Your task to perform on an android device: Open calendar and show me the third week of next month Image 0: 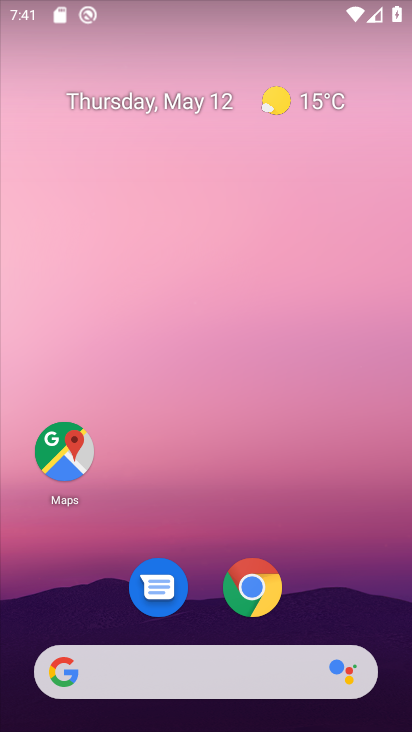
Step 0: drag from (384, 622) to (244, 9)
Your task to perform on an android device: Open calendar and show me the third week of next month Image 1: 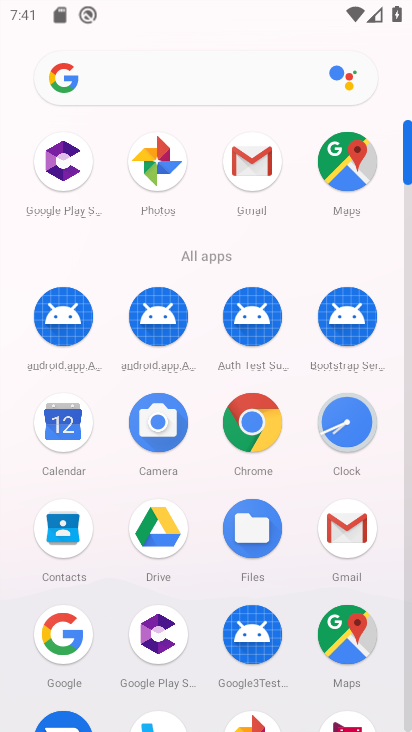
Step 1: click (69, 444)
Your task to perform on an android device: Open calendar and show me the third week of next month Image 2: 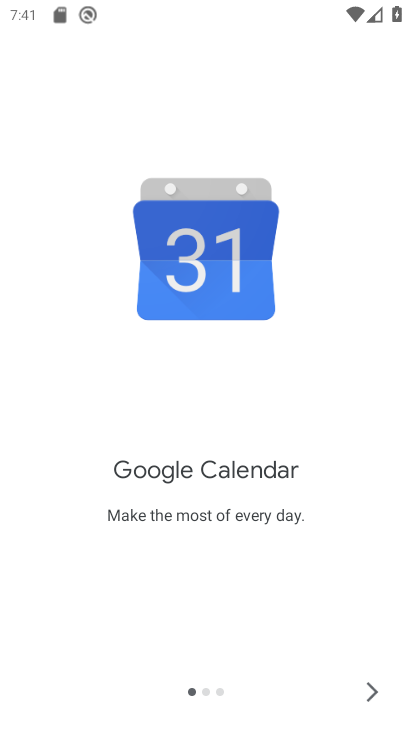
Step 2: click (377, 682)
Your task to perform on an android device: Open calendar and show me the third week of next month Image 3: 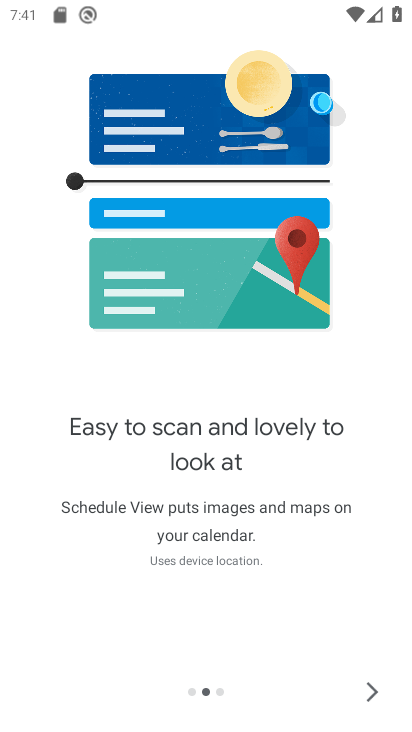
Step 3: click (377, 682)
Your task to perform on an android device: Open calendar and show me the third week of next month Image 4: 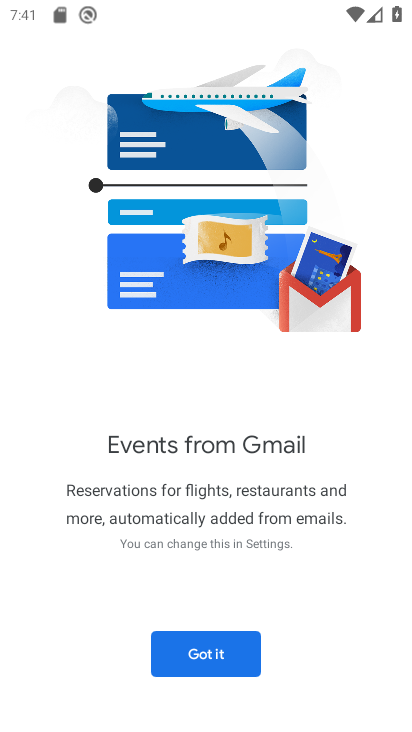
Step 4: click (201, 649)
Your task to perform on an android device: Open calendar and show me the third week of next month Image 5: 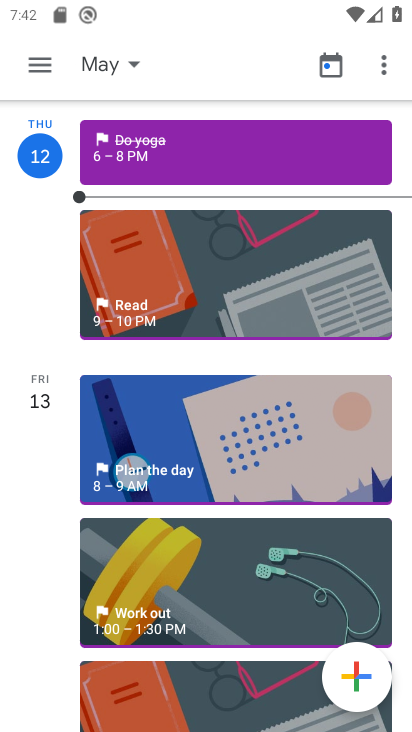
Step 5: click (102, 62)
Your task to perform on an android device: Open calendar and show me the third week of next month Image 6: 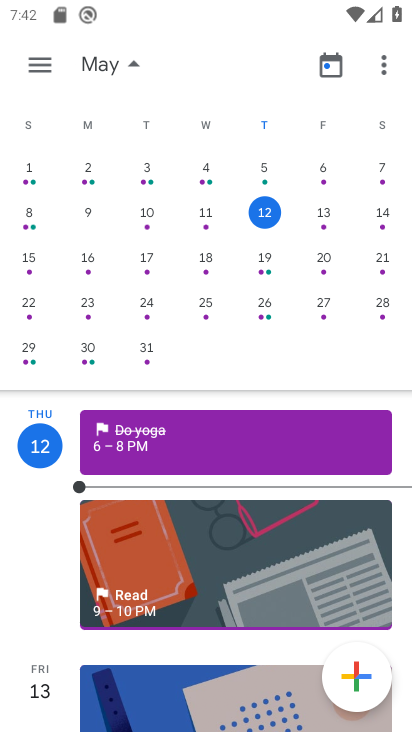
Step 6: drag from (358, 267) to (37, 284)
Your task to perform on an android device: Open calendar and show me the third week of next month Image 7: 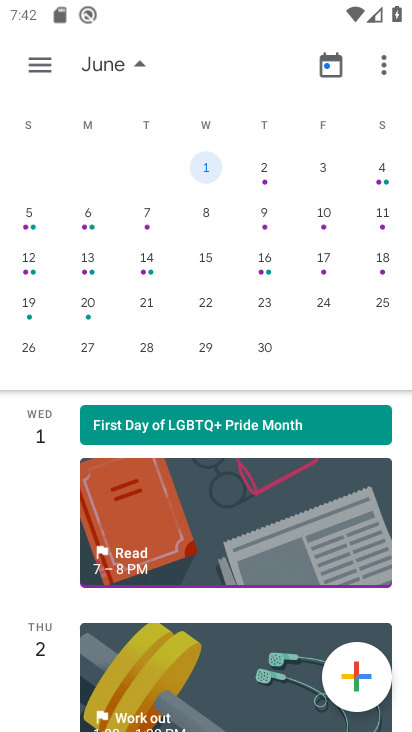
Step 7: click (23, 309)
Your task to perform on an android device: Open calendar and show me the third week of next month Image 8: 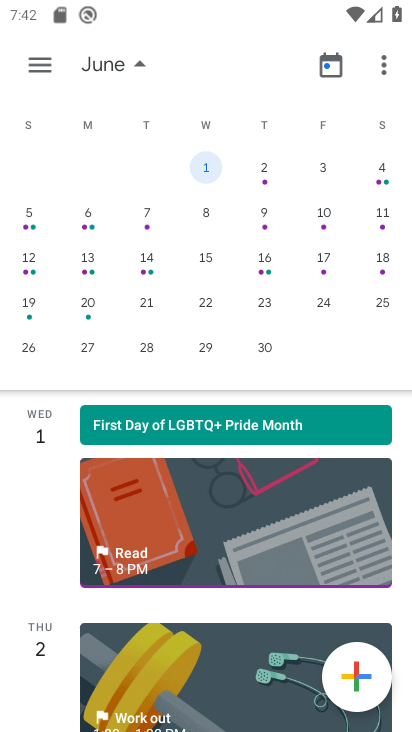
Step 8: click (95, 309)
Your task to perform on an android device: Open calendar and show me the third week of next month Image 9: 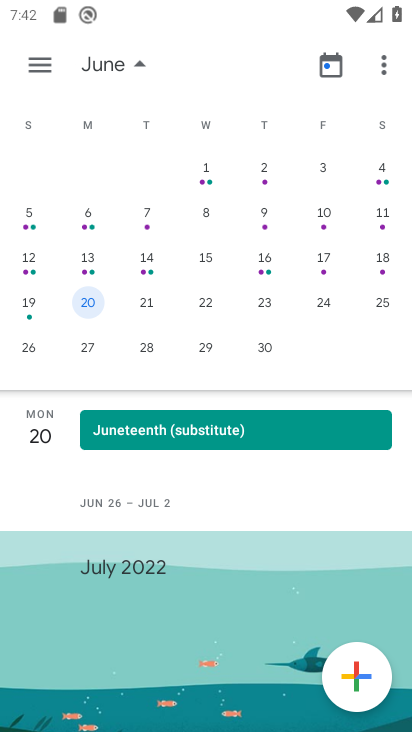
Step 9: task complete